Your task to perform on an android device: Open Google Chrome Image 0: 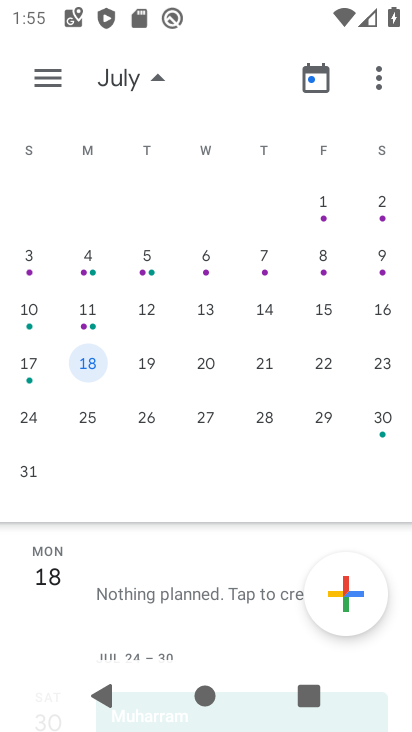
Step 0: press home button
Your task to perform on an android device: Open Google Chrome Image 1: 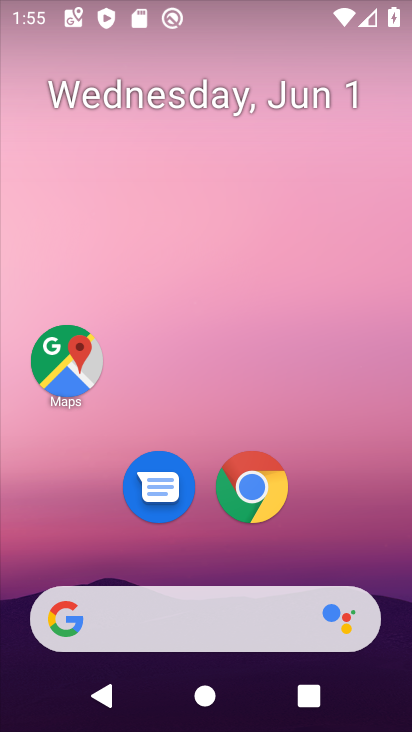
Step 1: drag from (328, 530) to (371, 229)
Your task to perform on an android device: Open Google Chrome Image 2: 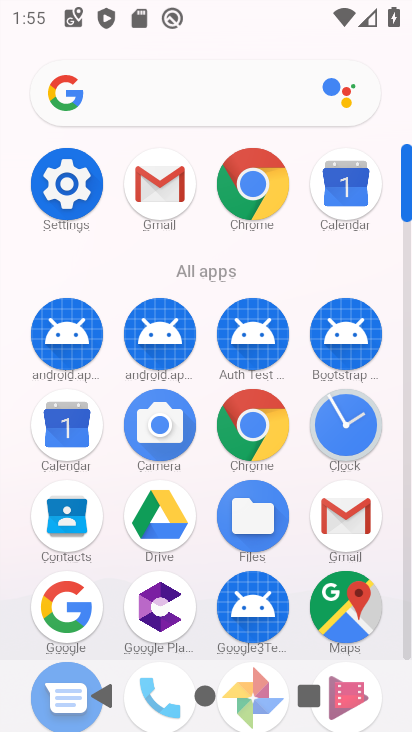
Step 2: click (268, 449)
Your task to perform on an android device: Open Google Chrome Image 3: 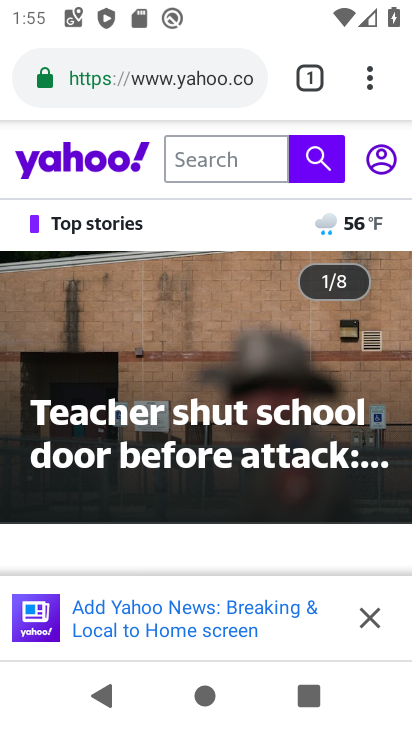
Step 3: task complete